Your task to perform on an android device: toggle show notifications on the lock screen Image 0: 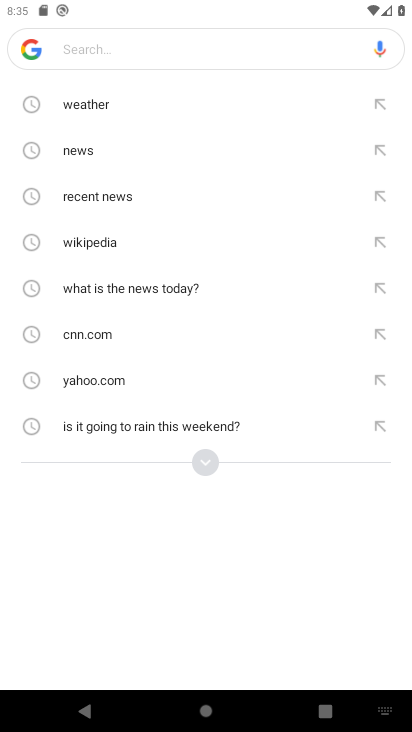
Step 0: press home button
Your task to perform on an android device: toggle show notifications on the lock screen Image 1: 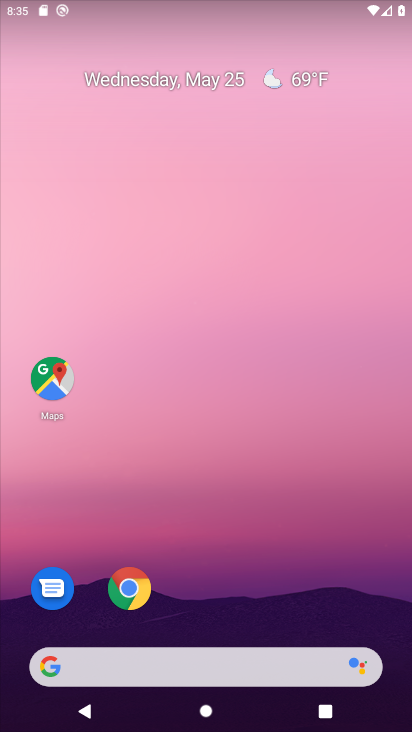
Step 1: drag from (311, 571) to (348, 169)
Your task to perform on an android device: toggle show notifications on the lock screen Image 2: 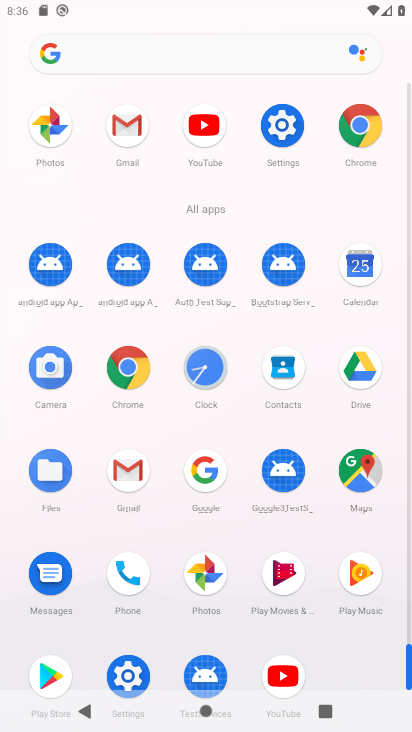
Step 2: click (286, 147)
Your task to perform on an android device: toggle show notifications on the lock screen Image 3: 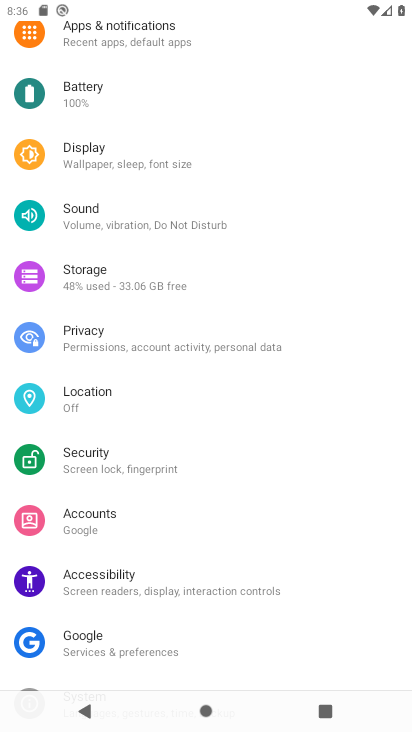
Step 3: drag from (335, 517) to (346, 462)
Your task to perform on an android device: toggle show notifications on the lock screen Image 4: 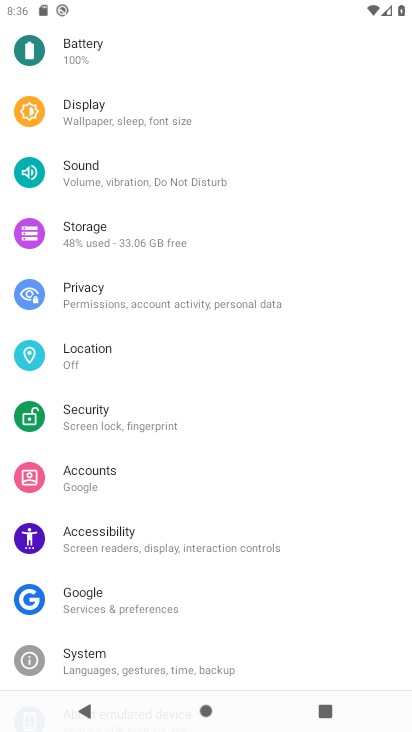
Step 4: click (348, 519)
Your task to perform on an android device: toggle show notifications on the lock screen Image 5: 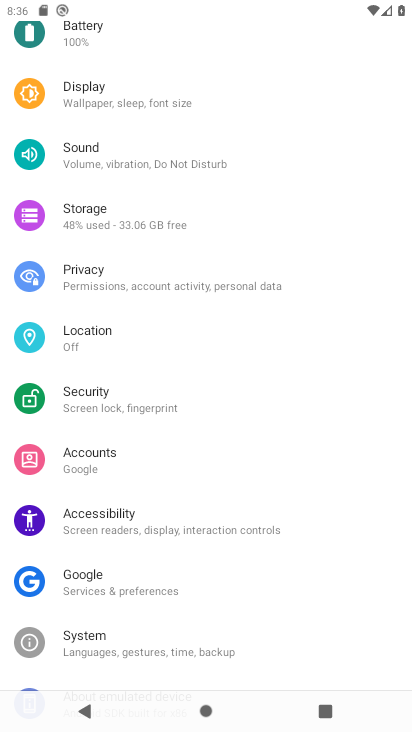
Step 5: drag from (349, 340) to (348, 397)
Your task to perform on an android device: toggle show notifications on the lock screen Image 6: 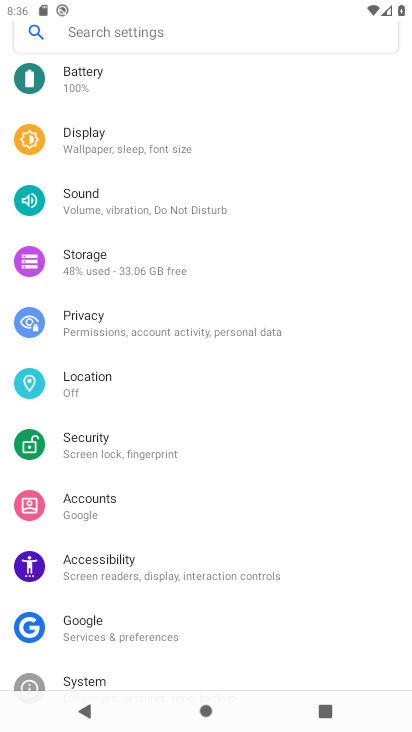
Step 6: drag from (343, 351) to (351, 396)
Your task to perform on an android device: toggle show notifications on the lock screen Image 7: 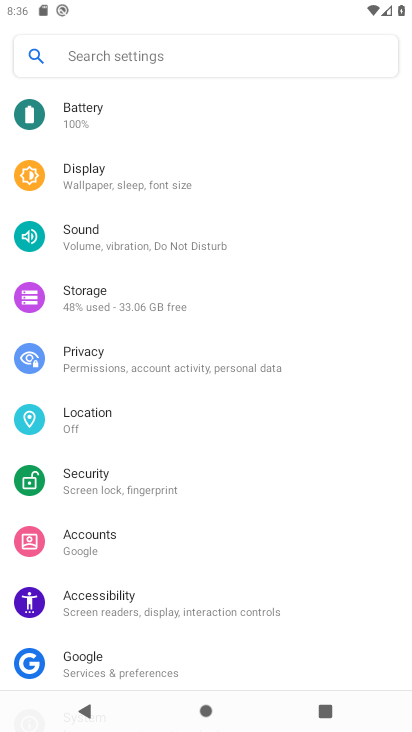
Step 7: drag from (354, 370) to (357, 415)
Your task to perform on an android device: toggle show notifications on the lock screen Image 8: 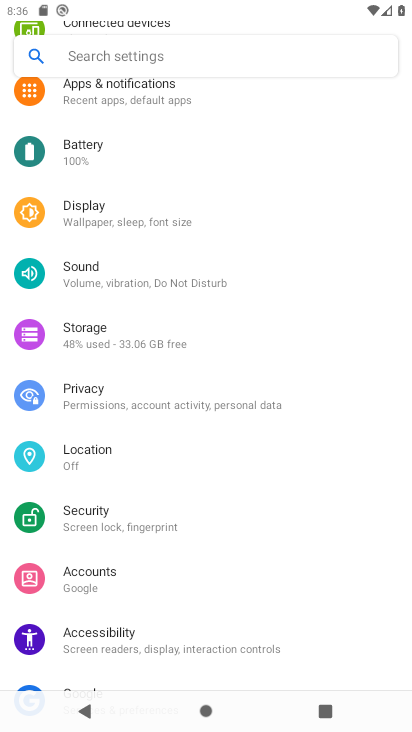
Step 8: drag from (357, 415) to (357, 478)
Your task to perform on an android device: toggle show notifications on the lock screen Image 9: 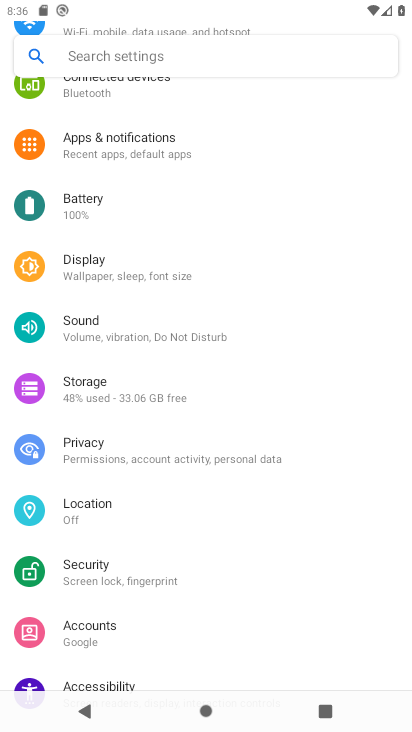
Step 9: drag from (371, 374) to (374, 419)
Your task to perform on an android device: toggle show notifications on the lock screen Image 10: 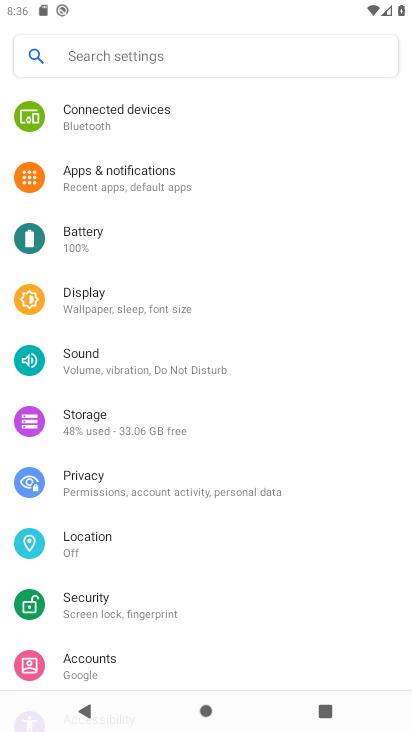
Step 10: drag from (366, 336) to (372, 453)
Your task to perform on an android device: toggle show notifications on the lock screen Image 11: 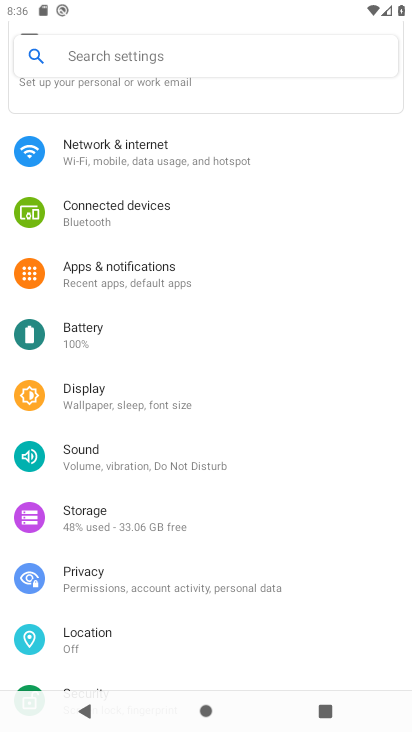
Step 11: click (168, 287)
Your task to perform on an android device: toggle show notifications on the lock screen Image 12: 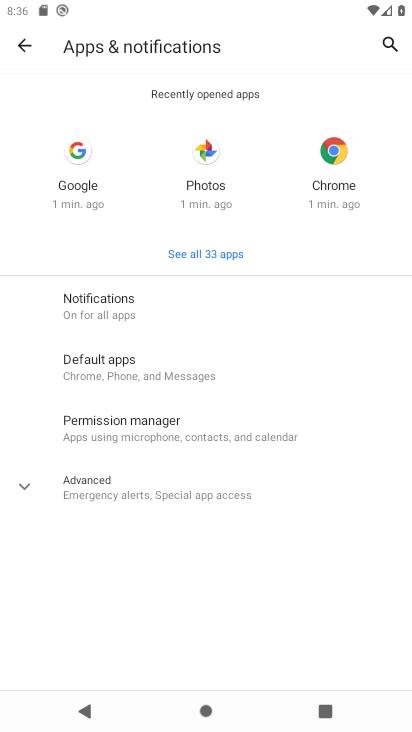
Step 12: click (151, 315)
Your task to perform on an android device: toggle show notifications on the lock screen Image 13: 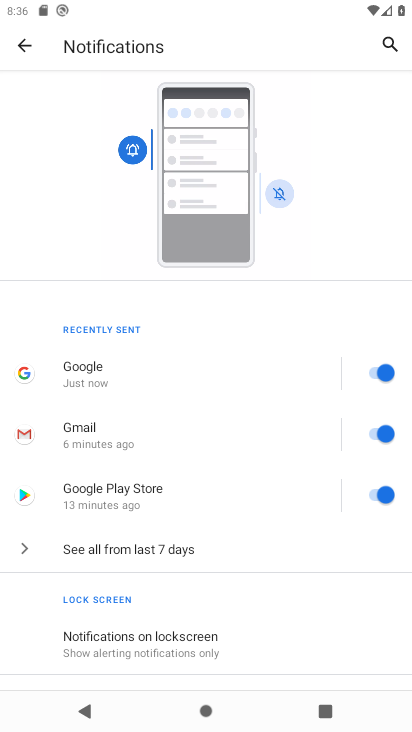
Step 13: drag from (268, 520) to (269, 448)
Your task to perform on an android device: toggle show notifications on the lock screen Image 14: 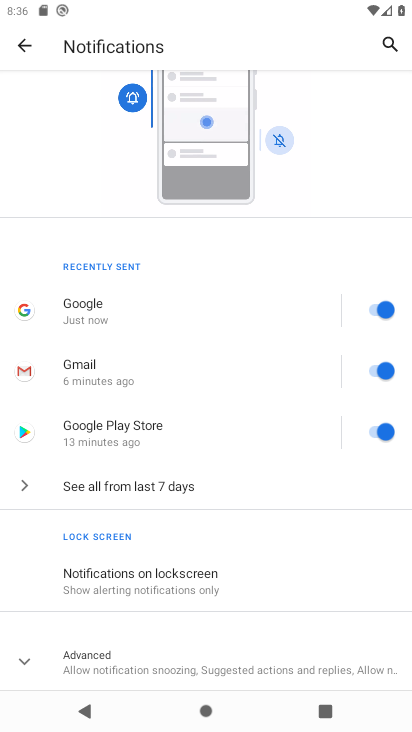
Step 14: drag from (275, 581) to (289, 485)
Your task to perform on an android device: toggle show notifications on the lock screen Image 15: 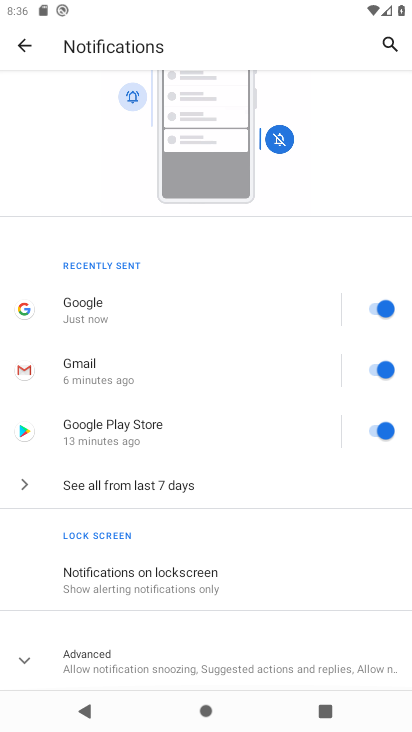
Step 15: click (232, 587)
Your task to perform on an android device: toggle show notifications on the lock screen Image 16: 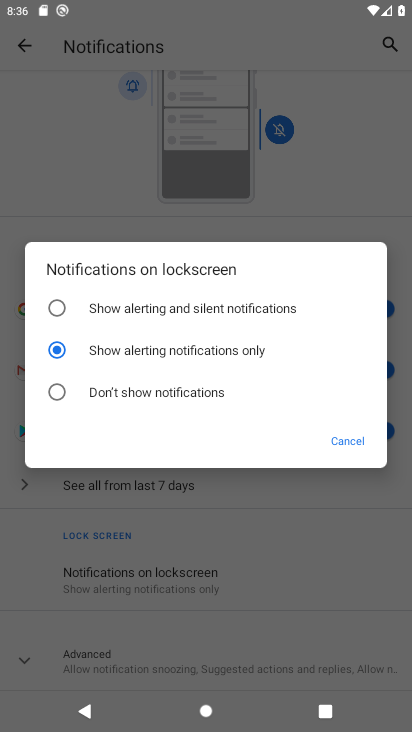
Step 16: click (104, 311)
Your task to perform on an android device: toggle show notifications on the lock screen Image 17: 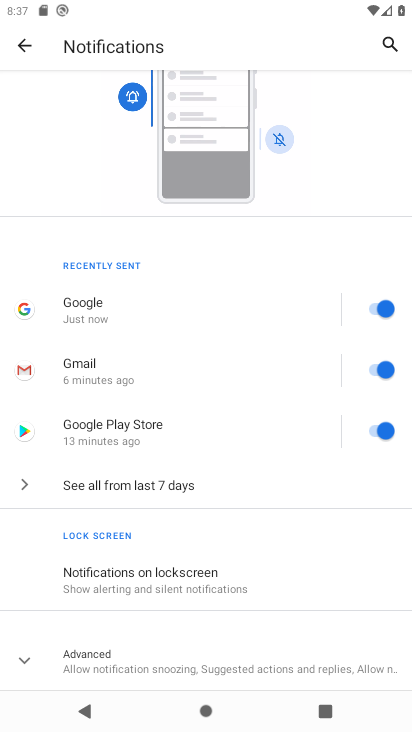
Step 17: task complete